Your task to perform on an android device: When is my next appointment? Image 0: 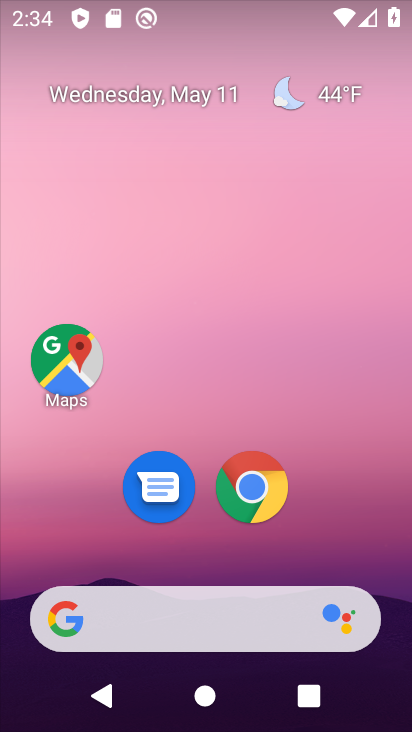
Step 0: drag from (199, 528) to (225, 163)
Your task to perform on an android device: When is my next appointment? Image 1: 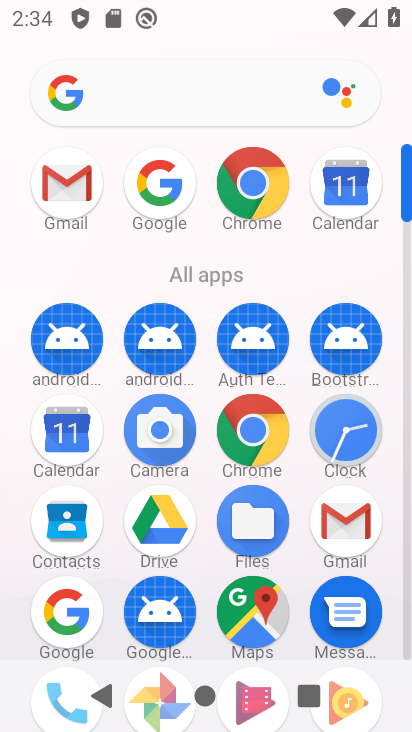
Step 1: click (67, 439)
Your task to perform on an android device: When is my next appointment? Image 2: 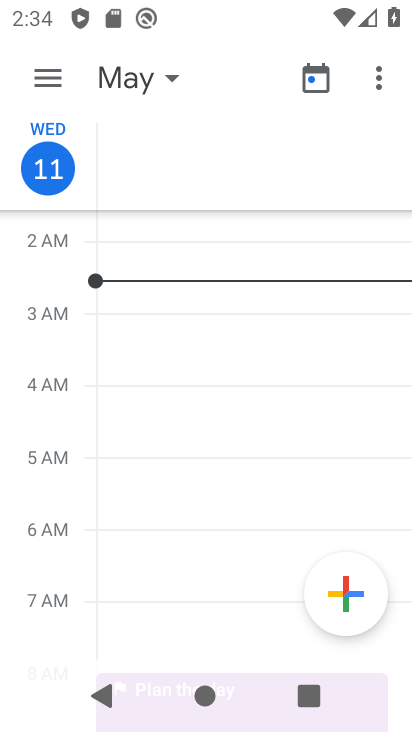
Step 2: click (31, 72)
Your task to perform on an android device: When is my next appointment? Image 3: 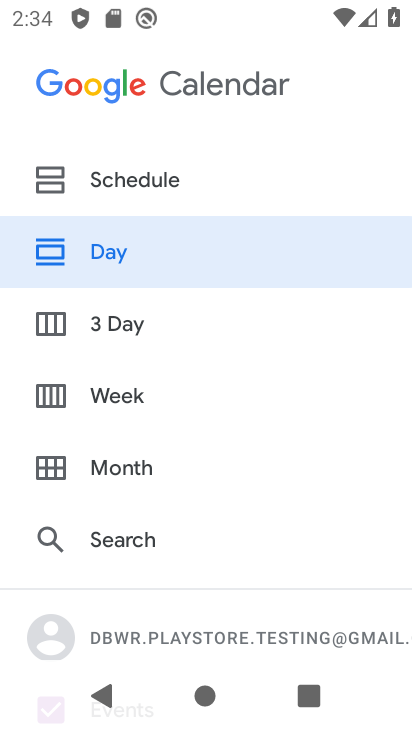
Step 3: click (129, 190)
Your task to perform on an android device: When is my next appointment? Image 4: 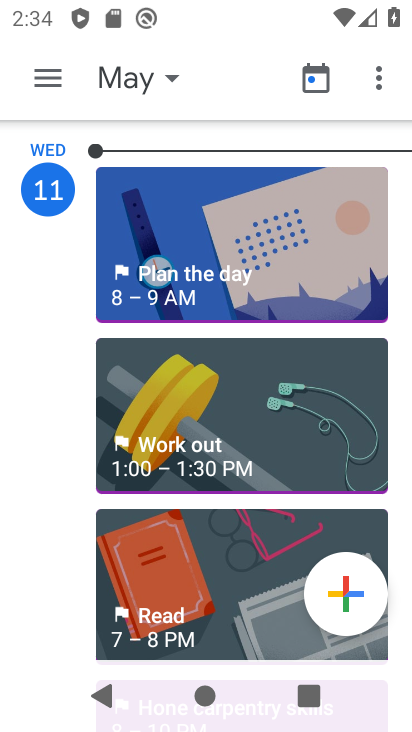
Step 4: drag from (202, 595) to (321, 90)
Your task to perform on an android device: When is my next appointment? Image 5: 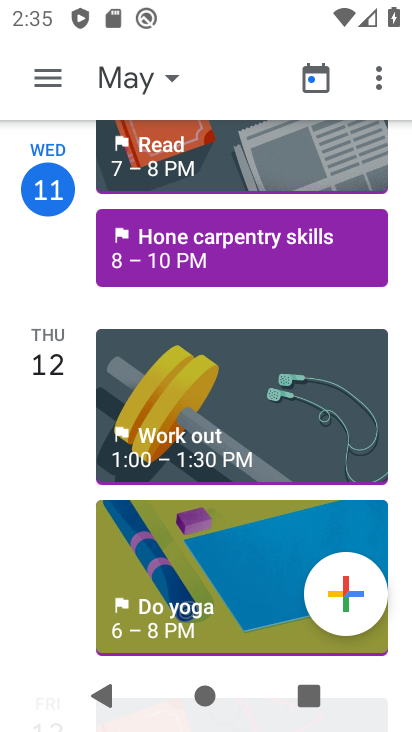
Step 5: click (203, 450)
Your task to perform on an android device: When is my next appointment? Image 6: 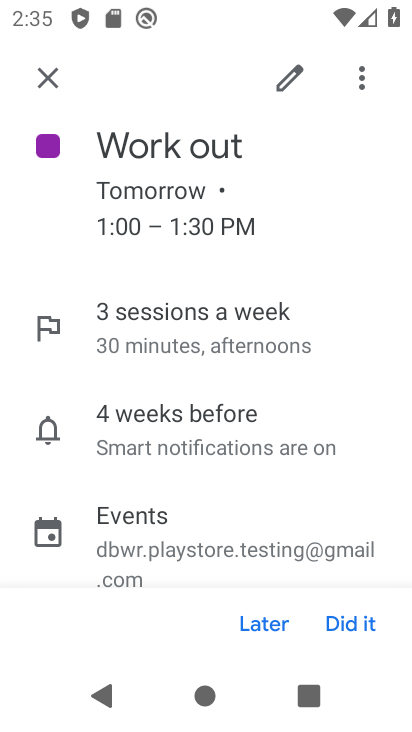
Step 6: click (49, 71)
Your task to perform on an android device: When is my next appointment? Image 7: 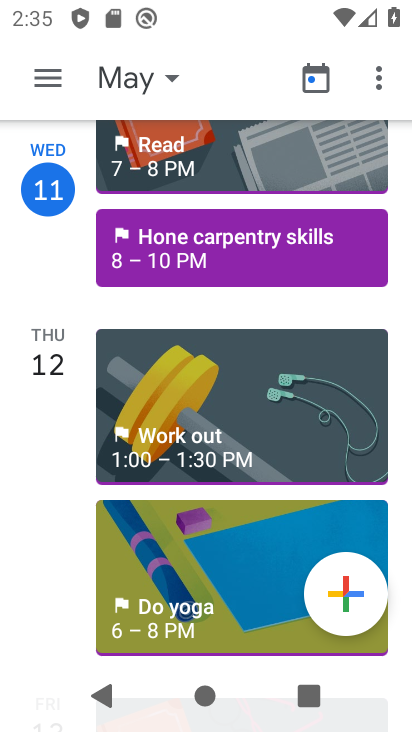
Step 7: drag from (301, 275) to (258, 422)
Your task to perform on an android device: When is my next appointment? Image 8: 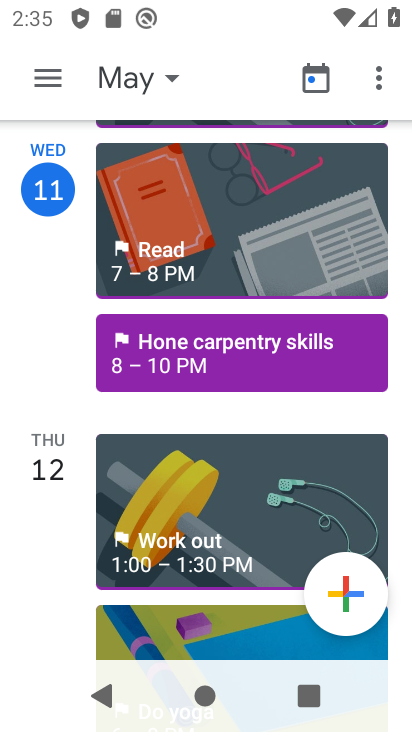
Step 8: drag from (225, 559) to (302, 260)
Your task to perform on an android device: When is my next appointment? Image 9: 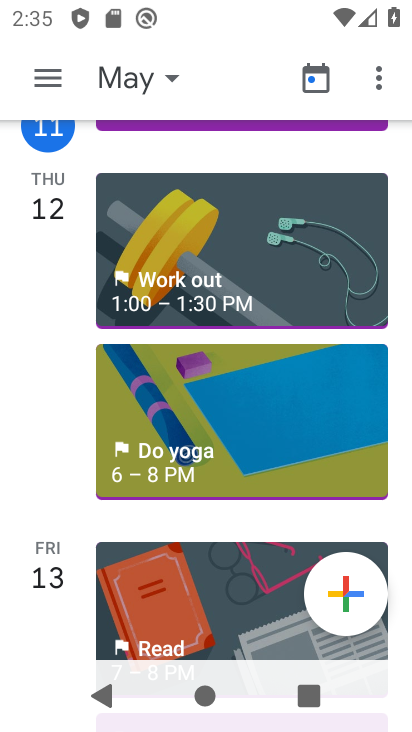
Step 9: drag from (197, 589) to (306, 140)
Your task to perform on an android device: When is my next appointment? Image 10: 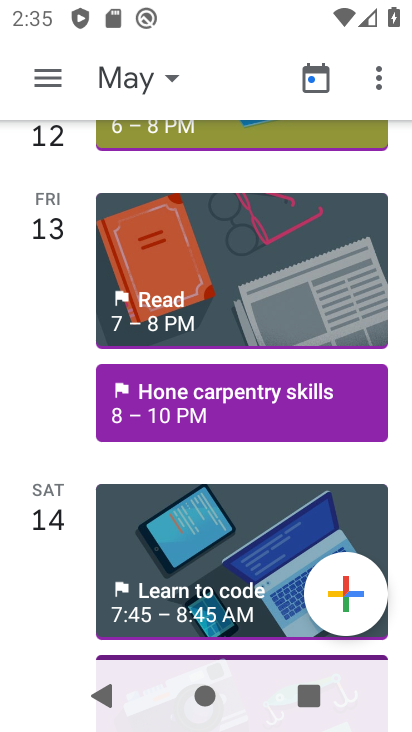
Step 10: click (205, 406)
Your task to perform on an android device: When is my next appointment? Image 11: 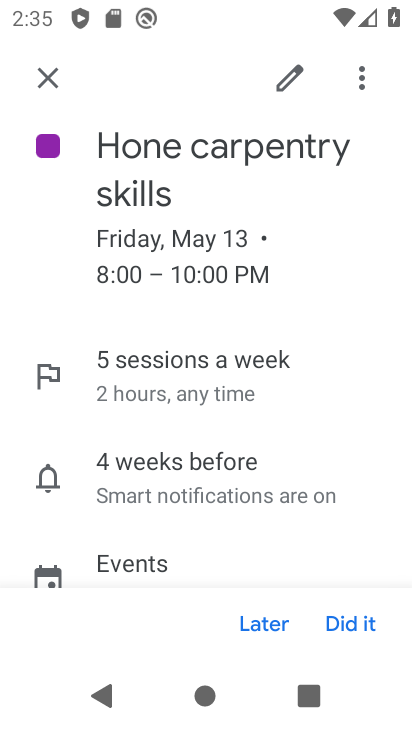
Step 11: task complete